Your task to perform on an android device: Check the weather Image 0: 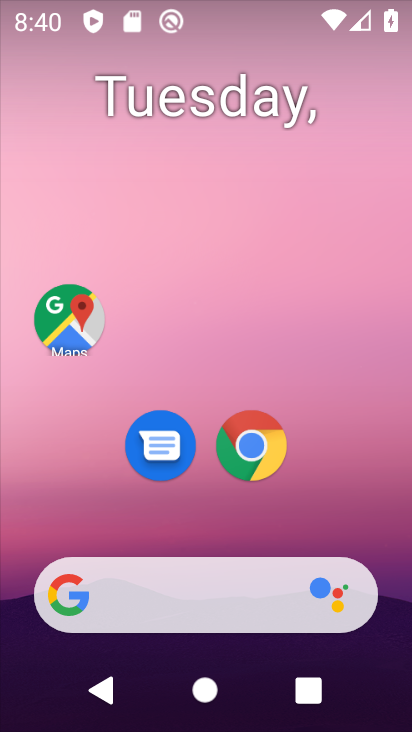
Step 0: click (242, 616)
Your task to perform on an android device: Check the weather Image 1: 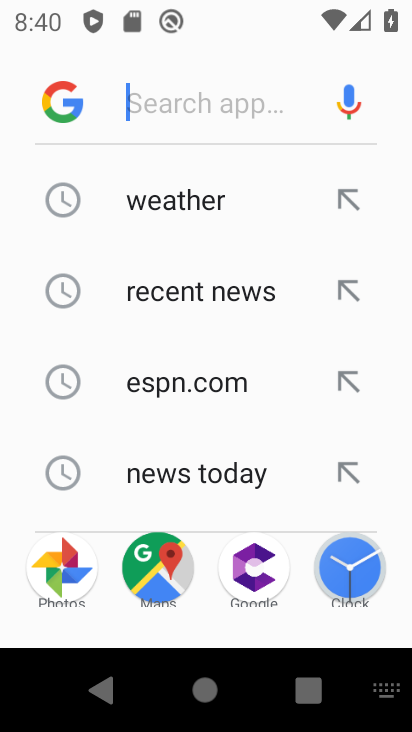
Step 1: type "weather"
Your task to perform on an android device: Check the weather Image 2: 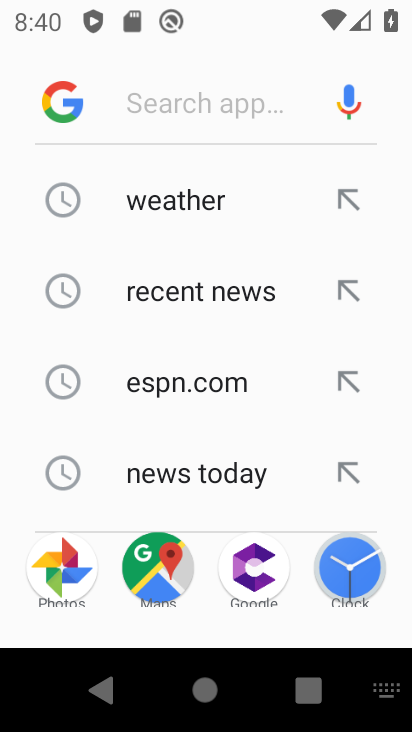
Step 2: click (226, 226)
Your task to perform on an android device: Check the weather Image 3: 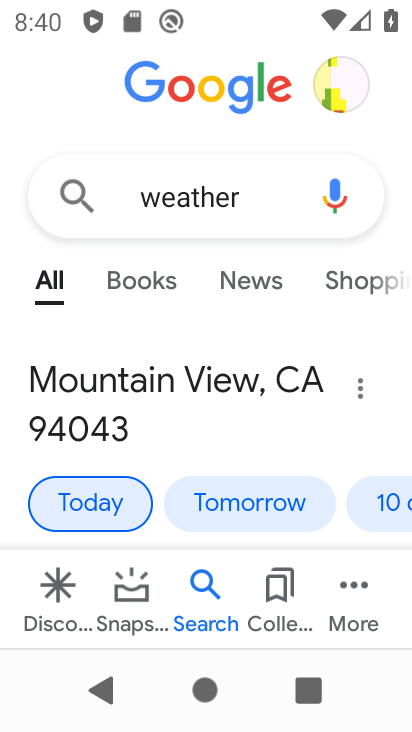
Step 3: task complete